Your task to perform on an android device: Open Youtube and go to the subscriptions tab Image 0: 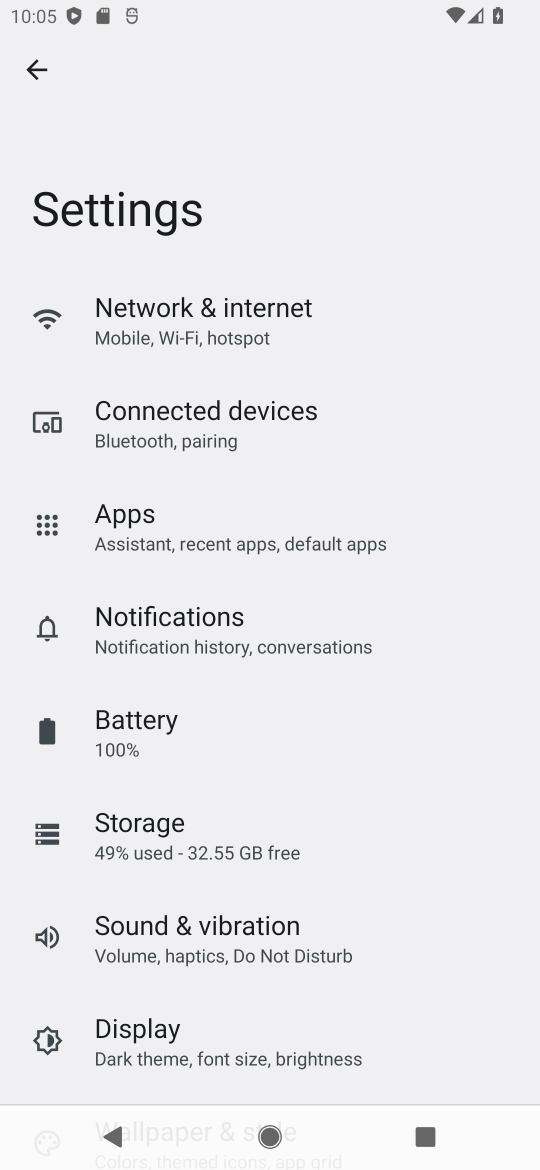
Step 0: task complete